Your task to perform on an android device: Toggle the flashlight Image 0: 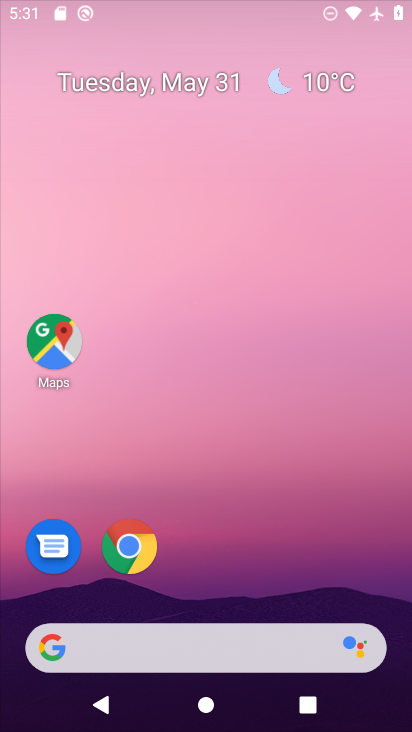
Step 0: drag from (253, 485) to (147, 61)
Your task to perform on an android device: Toggle the flashlight Image 1: 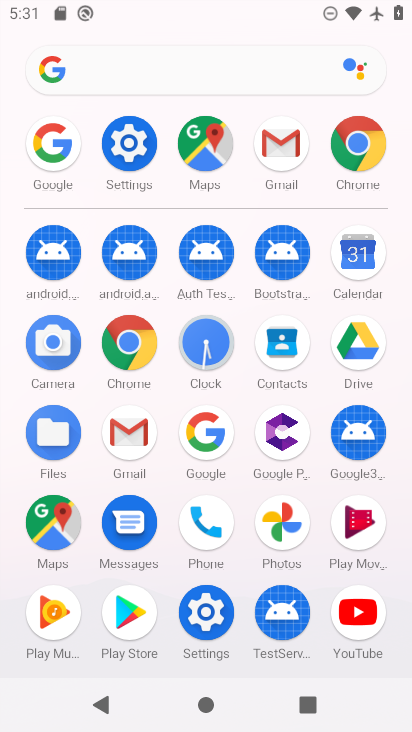
Step 1: task complete